Your task to perform on an android device: Go to Wikipedia Image 0: 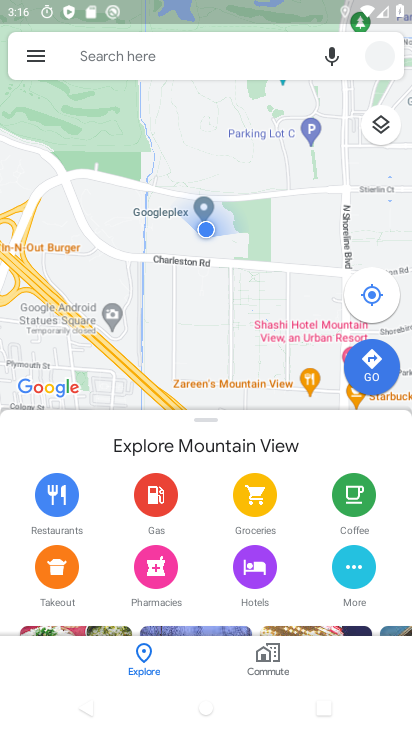
Step 0: press home button
Your task to perform on an android device: Go to Wikipedia Image 1: 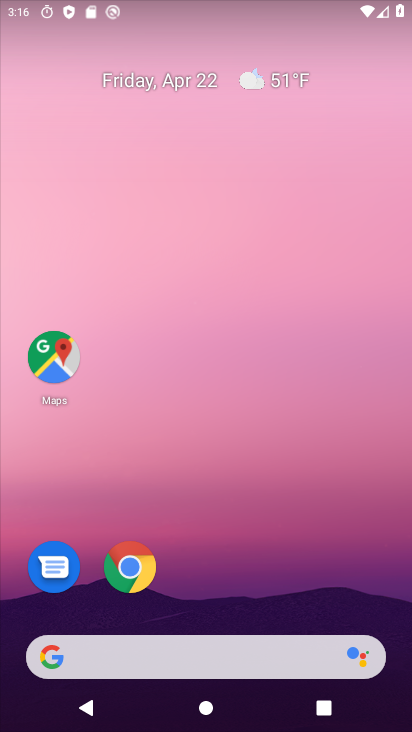
Step 1: drag from (236, 573) to (110, 548)
Your task to perform on an android device: Go to Wikipedia Image 2: 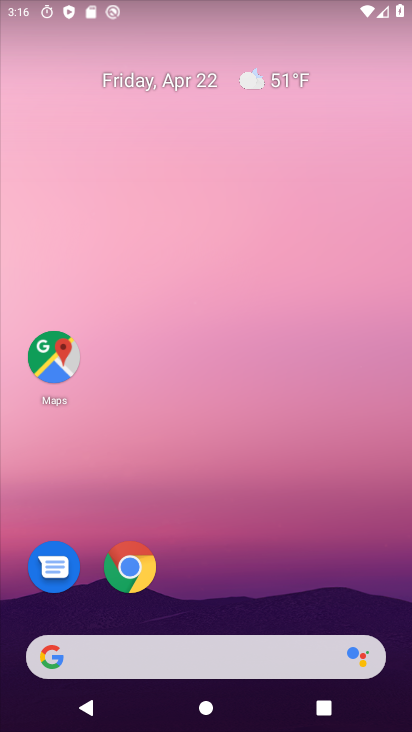
Step 2: click (136, 564)
Your task to perform on an android device: Go to Wikipedia Image 3: 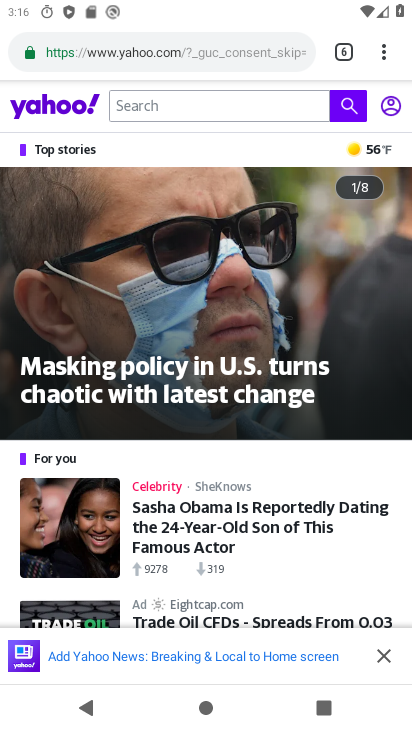
Step 3: click (340, 52)
Your task to perform on an android device: Go to Wikipedia Image 4: 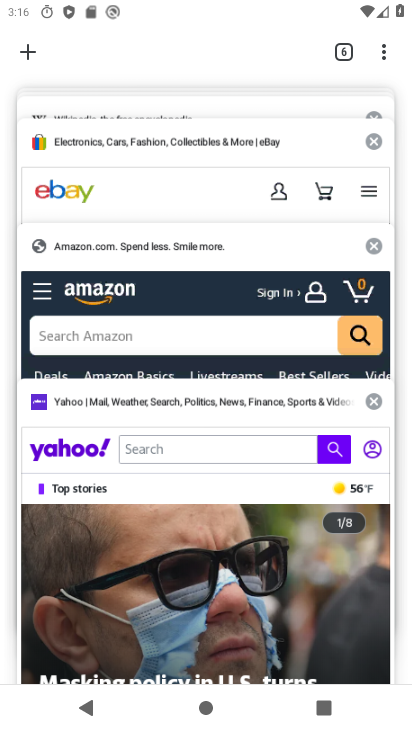
Step 4: click (25, 53)
Your task to perform on an android device: Go to Wikipedia Image 5: 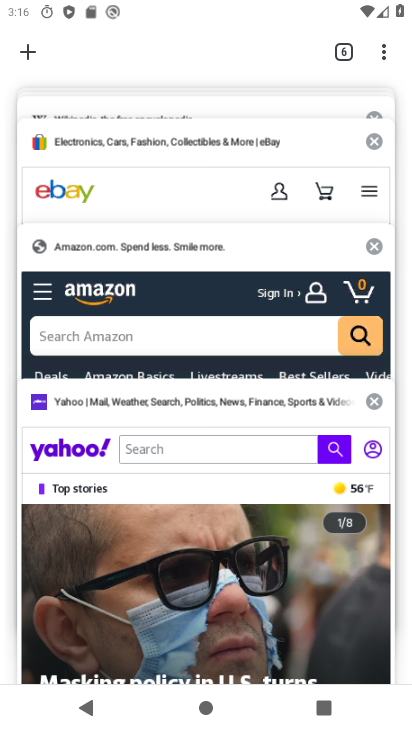
Step 5: click (17, 47)
Your task to perform on an android device: Go to Wikipedia Image 6: 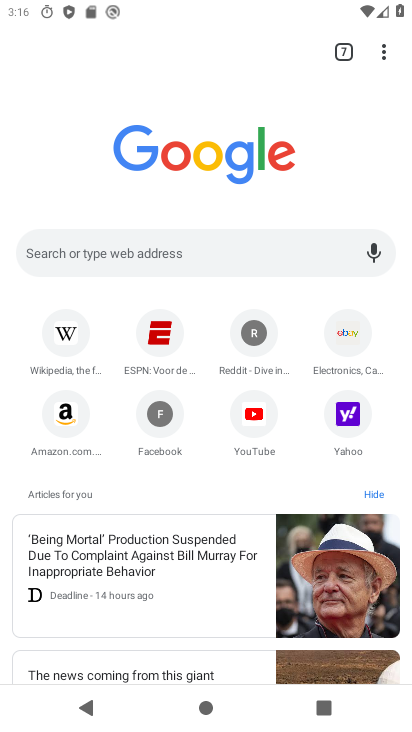
Step 6: click (69, 341)
Your task to perform on an android device: Go to Wikipedia Image 7: 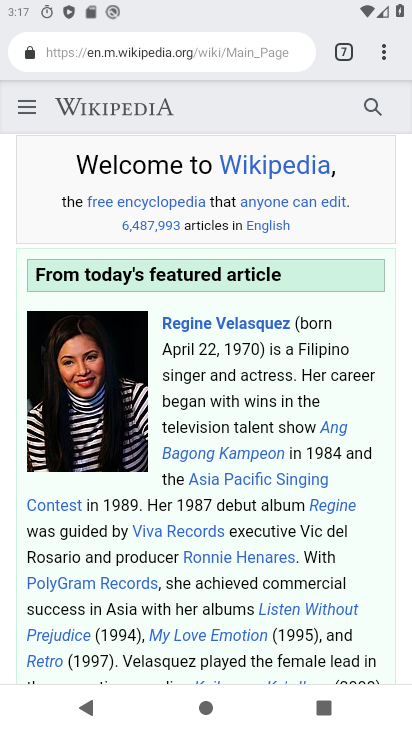
Step 7: task complete